Your task to perform on an android device: change notifications settings Image 0: 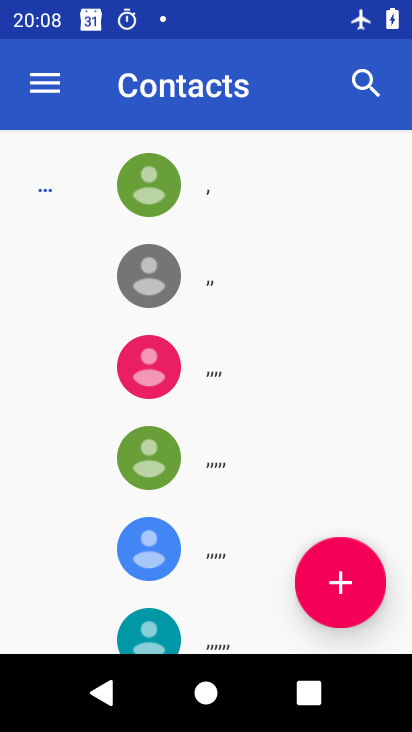
Step 0: press home button
Your task to perform on an android device: change notifications settings Image 1: 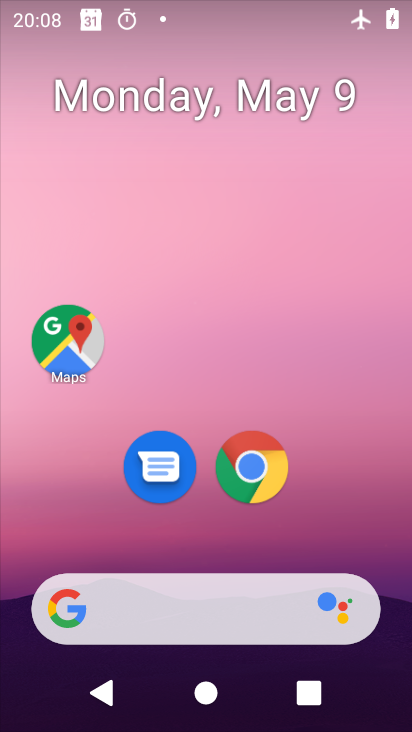
Step 1: drag from (333, 495) to (203, 8)
Your task to perform on an android device: change notifications settings Image 2: 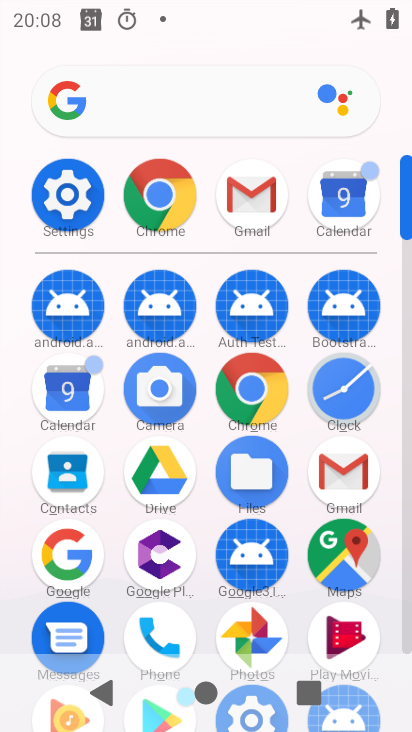
Step 2: click (70, 192)
Your task to perform on an android device: change notifications settings Image 3: 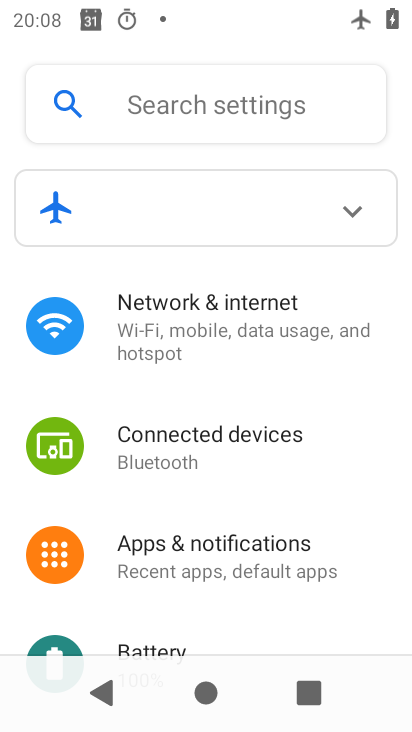
Step 3: drag from (237, 565) to (253, 256)
Your task to perform on an android device: change notifications settings Image 4: 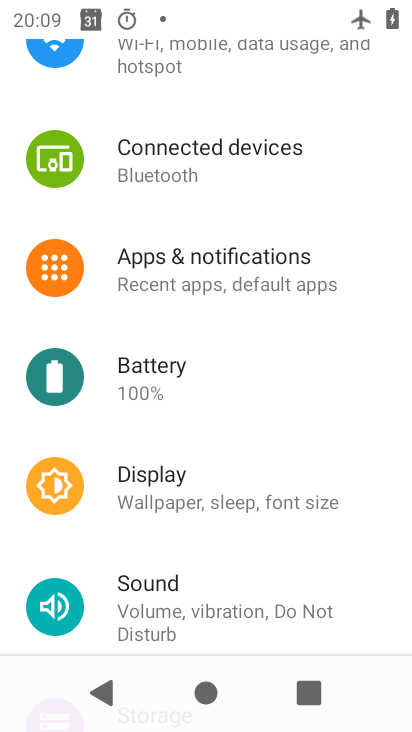
Step 4: click (222, 251)
Your task to perform on an android device: change notifications settings Image 5: 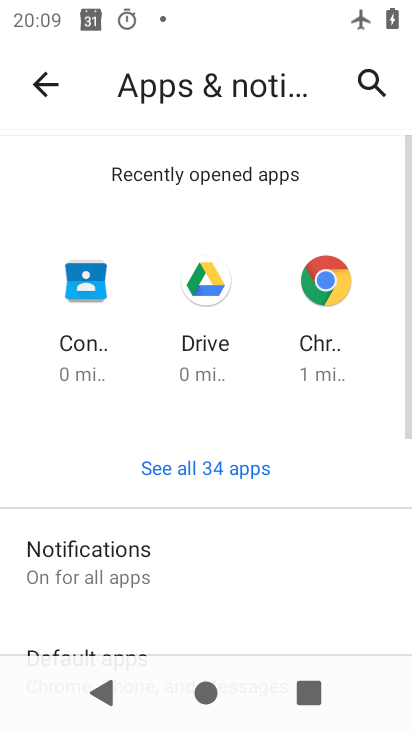
Step 5: drag from (259, 602) to (250, 143)
Your task to perform on an android device: change notifications settings Image 6: 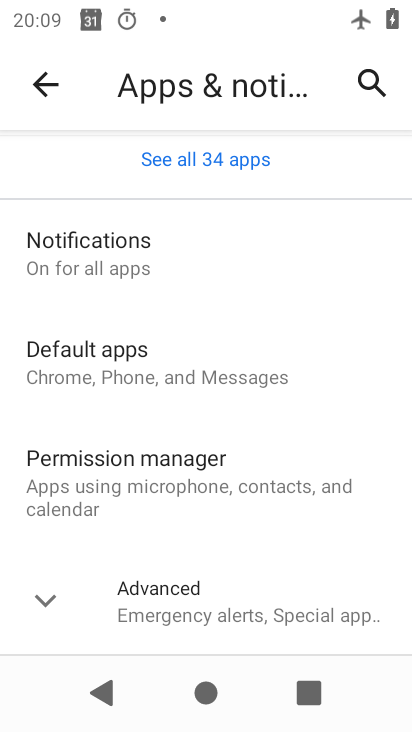
Step 6: click (95, 245)
Your task to perform on an android device: change notifications settings Image 7: 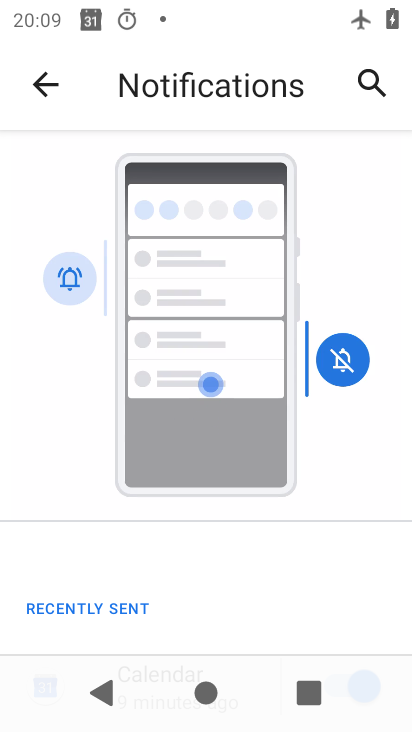
Step 7: drag from (289, 582) to (246, 43)
Your task to perform on an android device: change notifications settings Image 8: 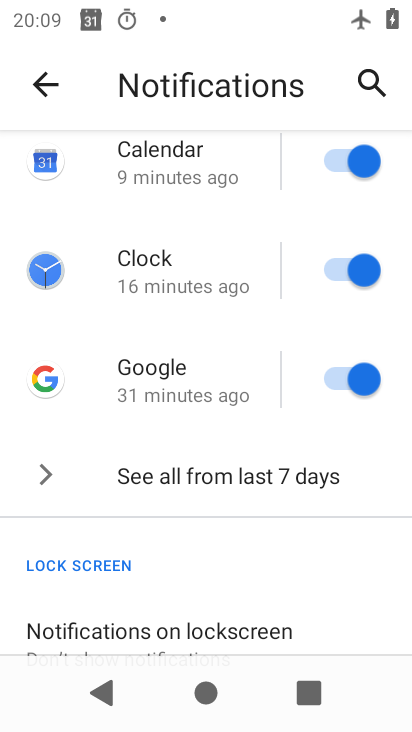
Step 8: drag from (288, 543) to (158, 111)
Your task to perform on an android device: change notifications settings Image 9: 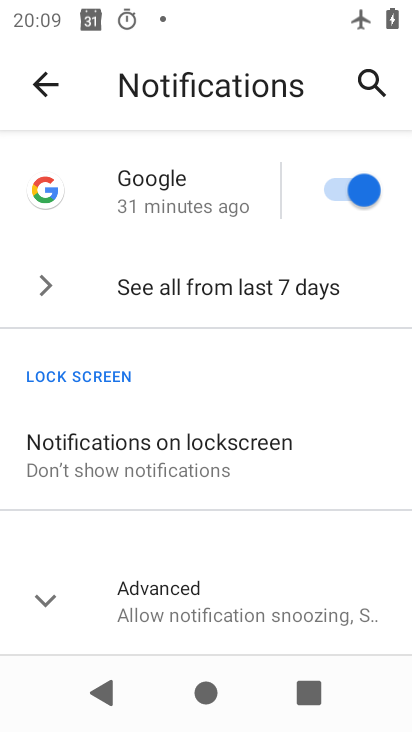
Step 9: click (202, 582)
Your task to perform on an android device: change notifications settings Image 10: 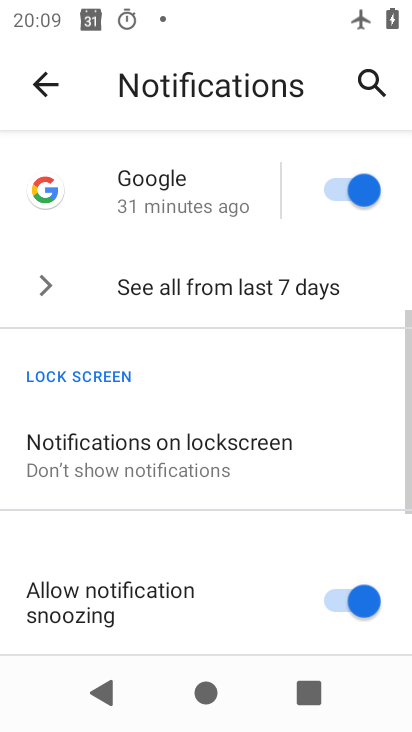
Step 10: click (344, 588)
Your task to perform on an android device: change notifications settings Image 11: 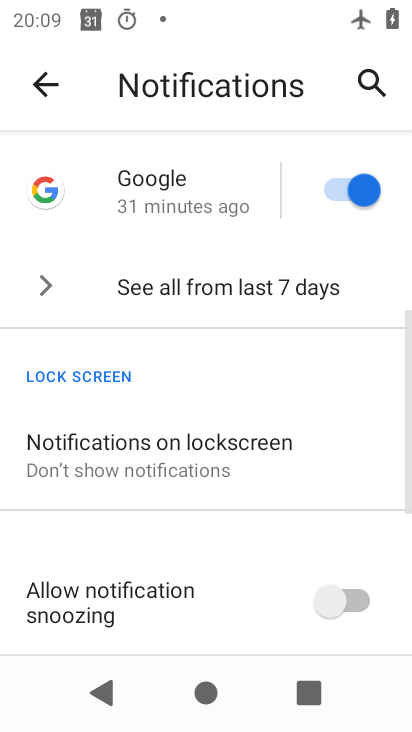
Step 11: task complete